Your task to perform on an android device: Search for hotels in Denver Image 0: 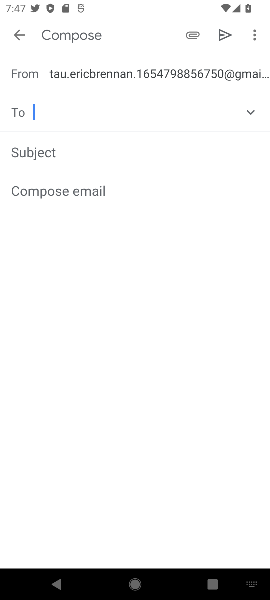
Step 0: press home button
Your task to perform on an android device: Search for hotels in Denver Image 1: 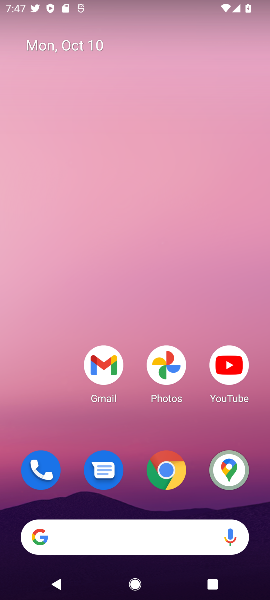
Step 1: click (175, 471)
Your task to perform on an android device: Search for hotels in Denver Image 2: 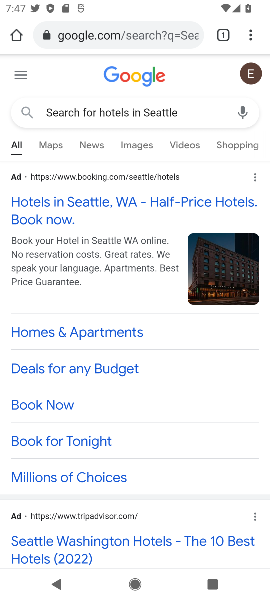
Step 2: click (152, 39)
Your task to perform on an android device: Search for hotels in Denver Image 3: 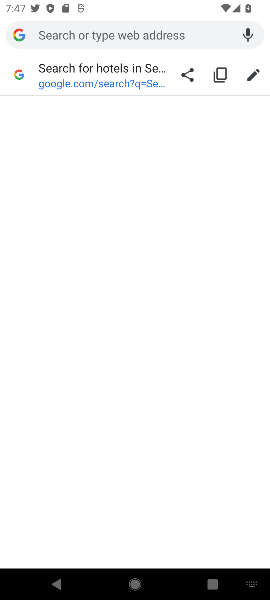
Step 3: type "Search for hotels in Denver"
Your task to perform on an android device: Search for hotels in Denver Image 4: 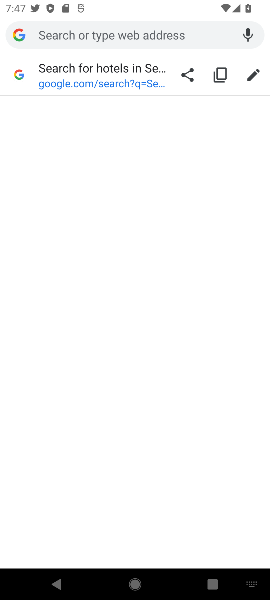
Step 4: click (93, 66)
Your task to perform on an android device: Search for hotels in Denver Image 5: 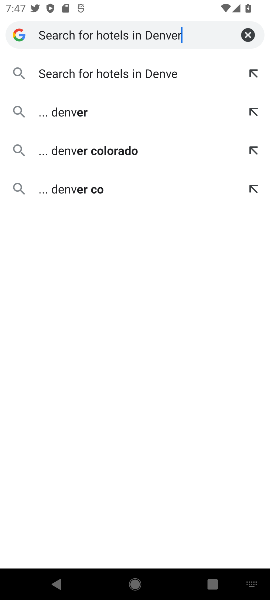
Step 5: type ""
Your task to perform on an android device: Search for hotels in Denver Image 6: 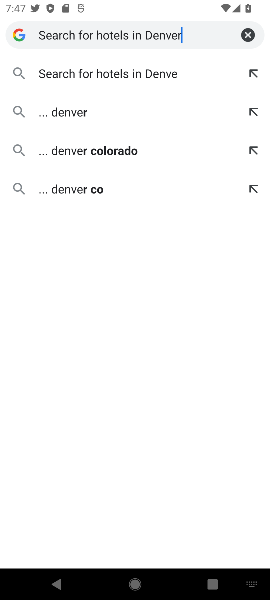
Step 6: click (93, 66)
Your task to perform on an android device: Search for hotels in Denver Image 7: 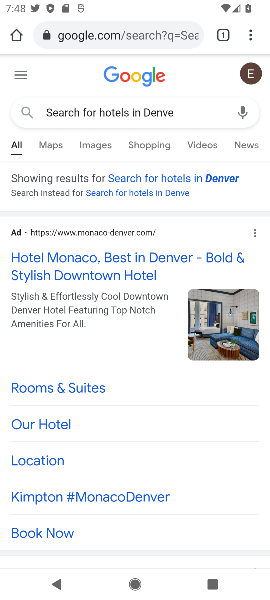
Step 7: task complete